Your task to perform on an android device: Go to display settings Image 0: 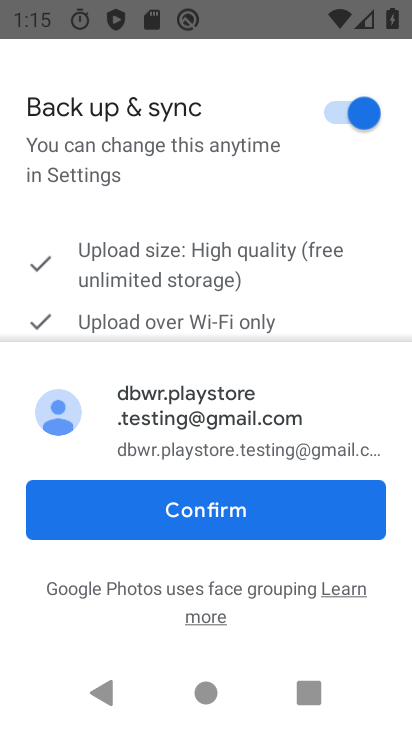
Step 0: press home button
Your task to perform on an android device: Go to display settings Image 1: 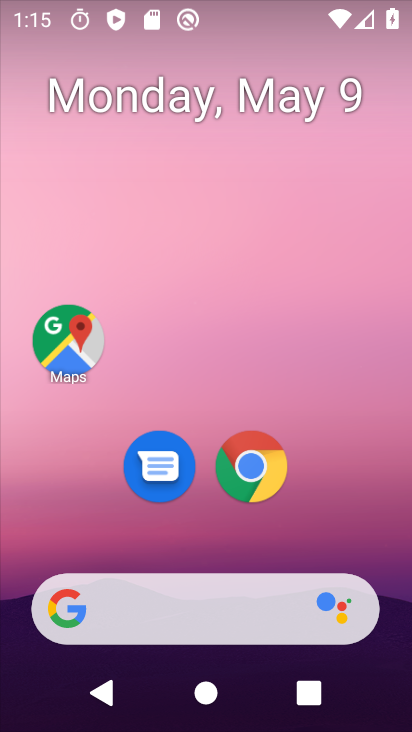
Step 1: drag from (285, 580) to (323, 213)
Your task to perform on an android device: Go to display settings Image 2: 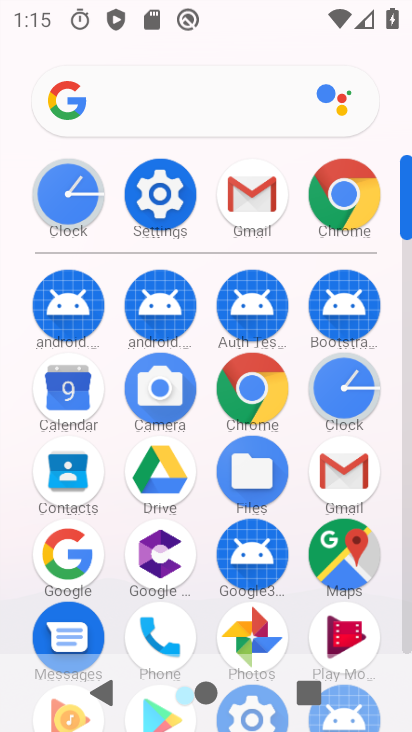
Step 2: click (150, 188)
Your task to perform on an android device: Go to display settings Image 3: 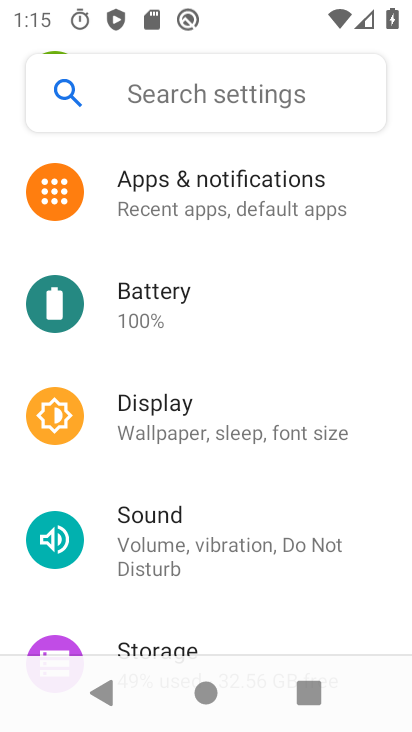
Step 3: click (168, 425)
Your task to perform on an android device: Go to display settings Image 4: 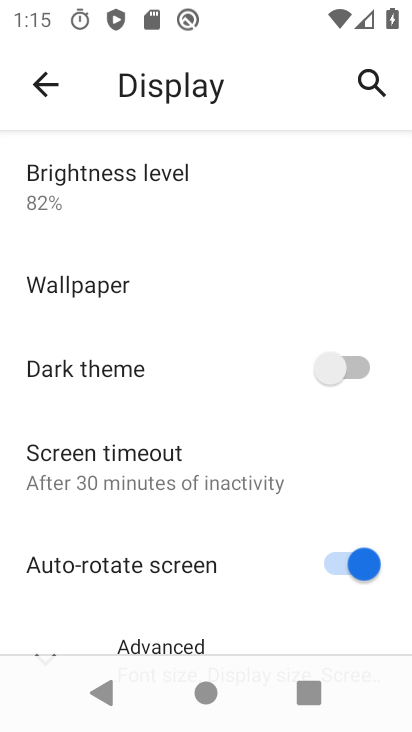
Step 4: drag from (171, 429) to (210, 231)
Your task to perform on an android device: Go to display settings Image 5: 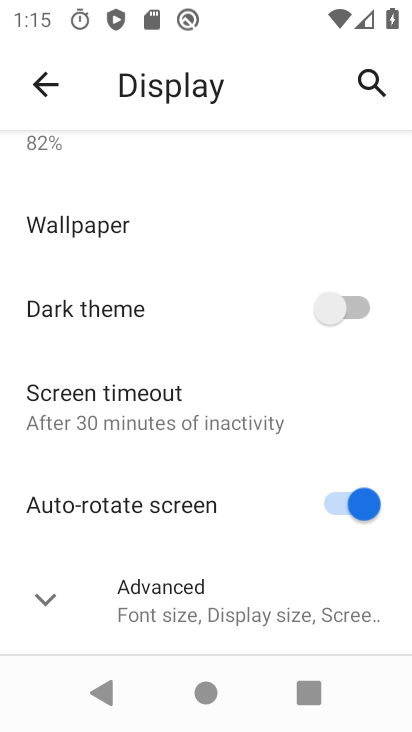
Step 5: click (167, 587)
Your task to perform on an android device: Go to display settings Image 6: 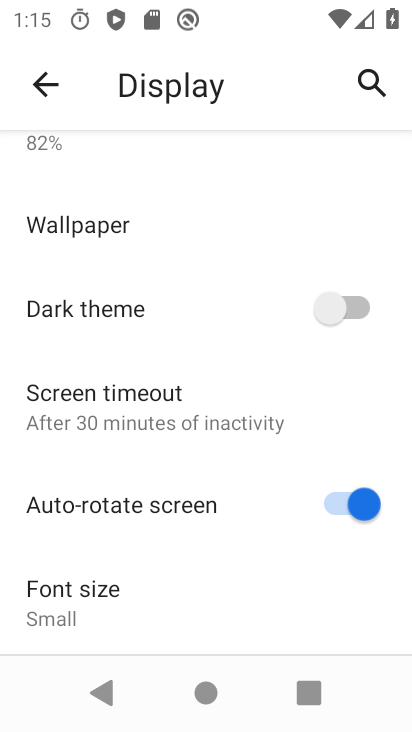
Step 6: task complete